Your task to perform on an android device: Open the map Image 0: 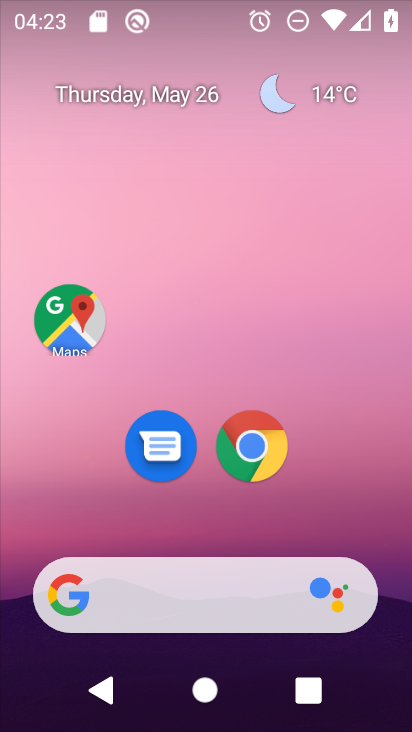
Step 0: click (67, 314)
Your task to perform on an android device: Open the map Image 1: 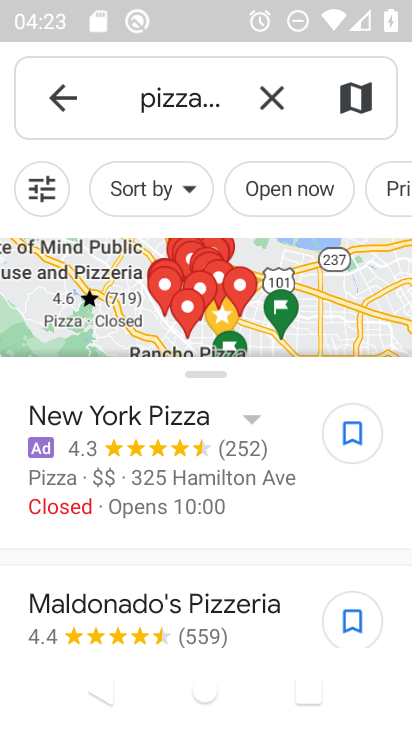
Step 1: task complete